Your task to perform on an android device: set the stopwatch Image 0: 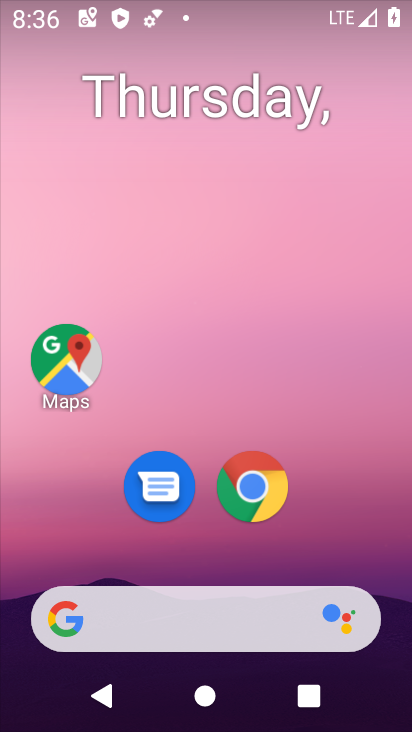
Step 0: drag from (212, 550) to (246, 28)
Your task to perform on an android device: set the stopwatch Image 1: 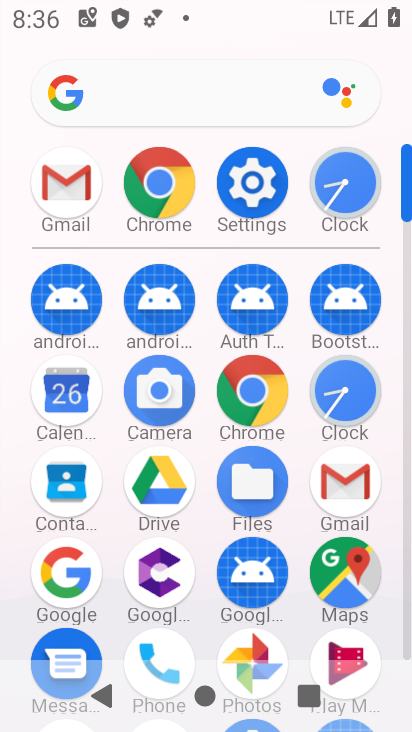
Step 1: click (351, 394)
Your task to perform on an android device: set the stopwatch Image 2: 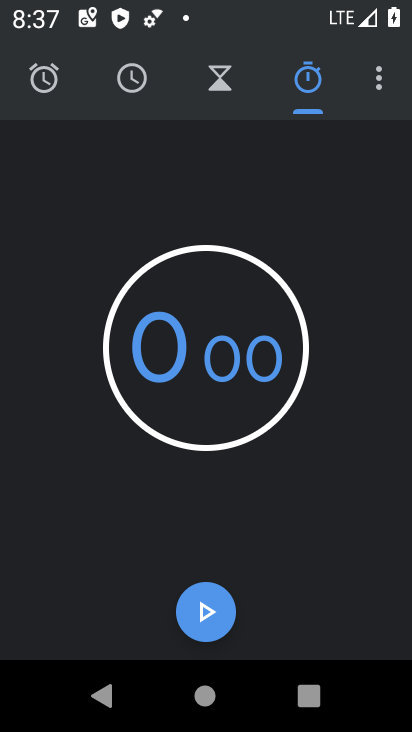
Step 2: click (214, 622)
Your task to perform on an android device: set the stopwatch Image 3: 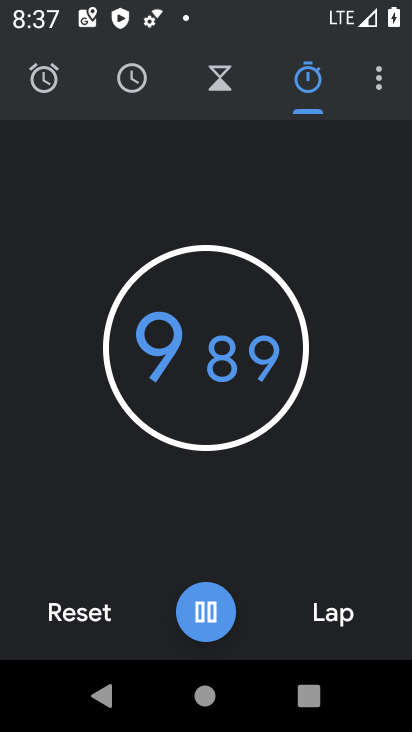
Step 3: task complete